Your task to perform on an android device: change the clock display to digital Image 0: 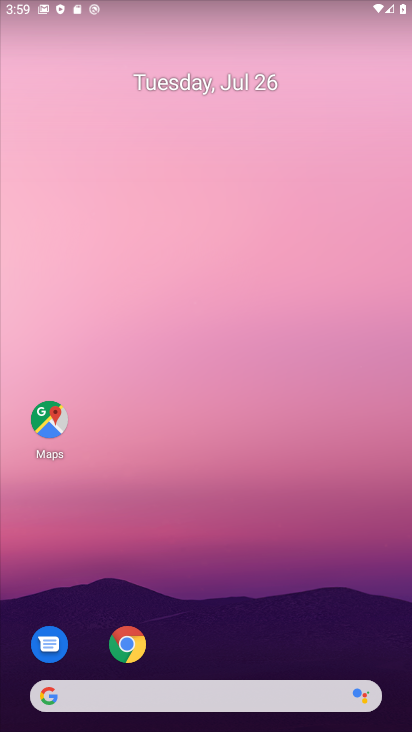
Step 0: drag from (392, 656) to (344, 196)
Your task to perform on an android device: change the clock display to digital Image 1: 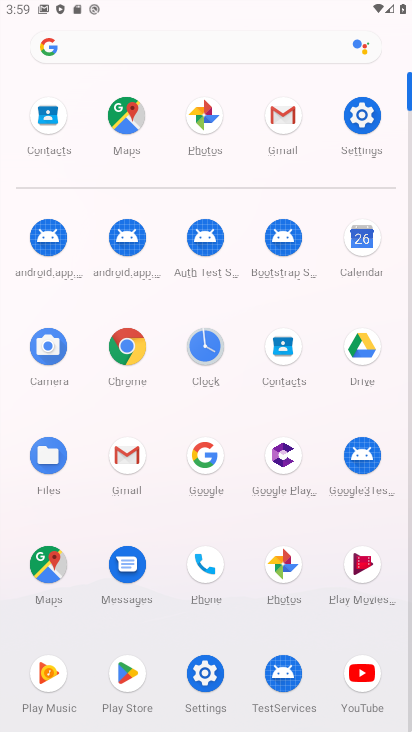
Step 1: click (204, 345)
Your task to perform on an android device: change the clock display to digital Image 2: 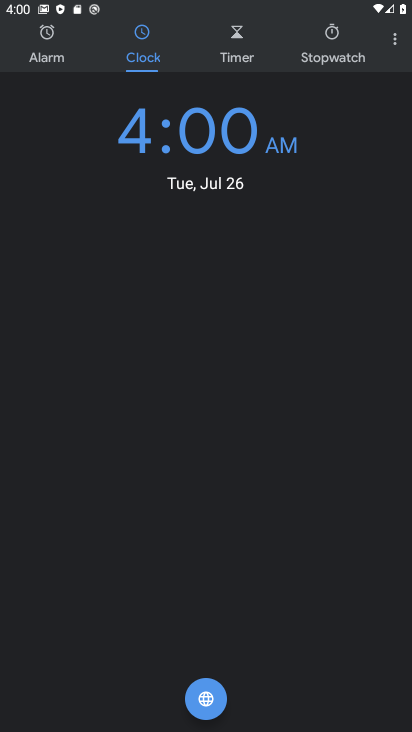
Step 2: click (395, 46)
Your task to perform on an android device: change the clock display to digital Image 3: 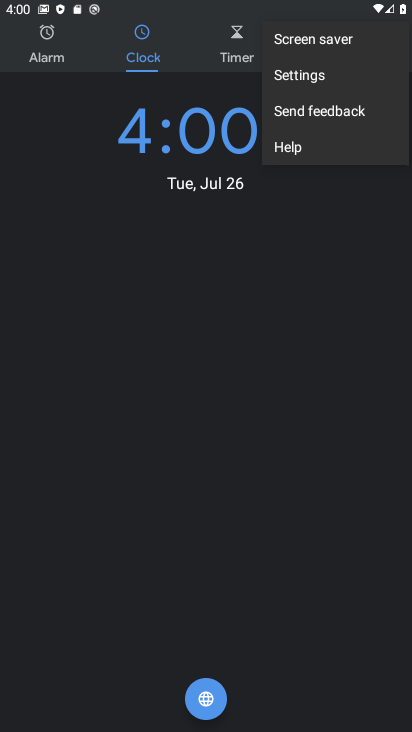
Step 3: click (298, 75)
Your task to perform on an android device: change the clock display to digital Image 4: 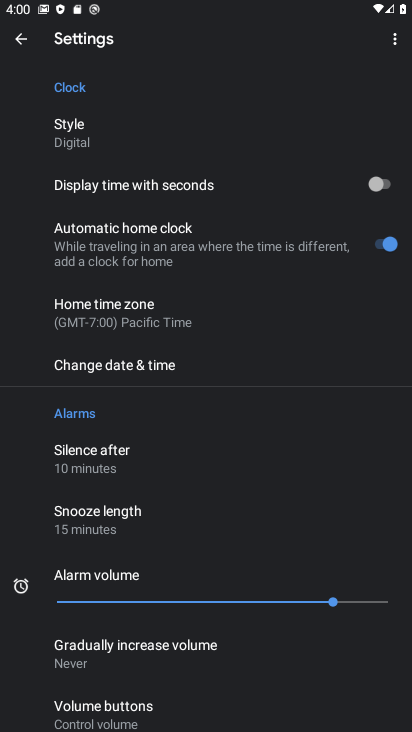
Step 4: task complete